Your task to perform on an android device: see creations saved in the google photos Image 0: 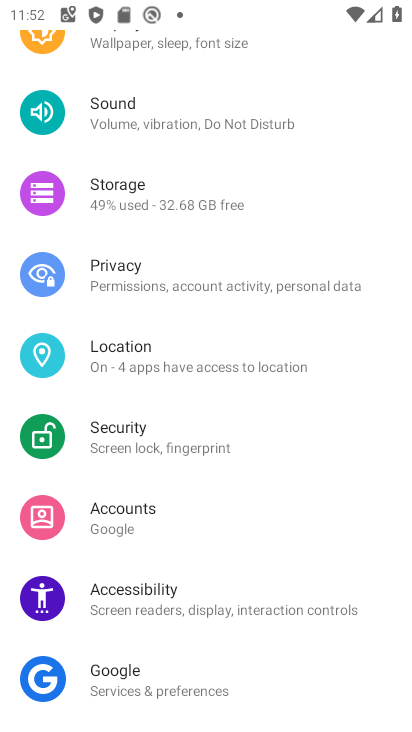
Step 0: press home button
Your task to perform on an android device: see creations saved in the google photos Image 1: 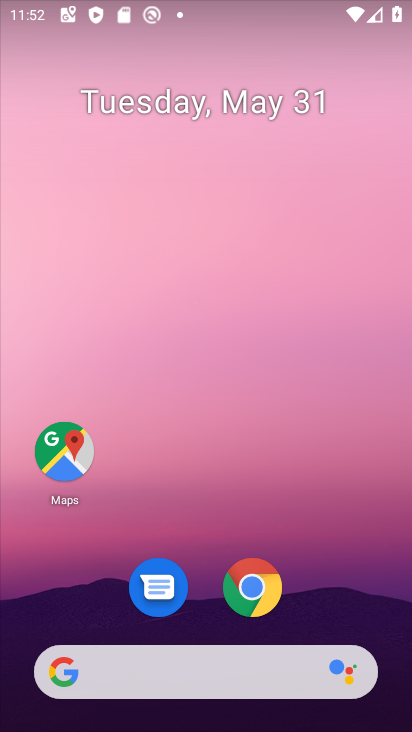
Step 1: drag from (350, 521) to (332, 223)
Your task to perform on an android device: see creations saved in the google photos Image 2: 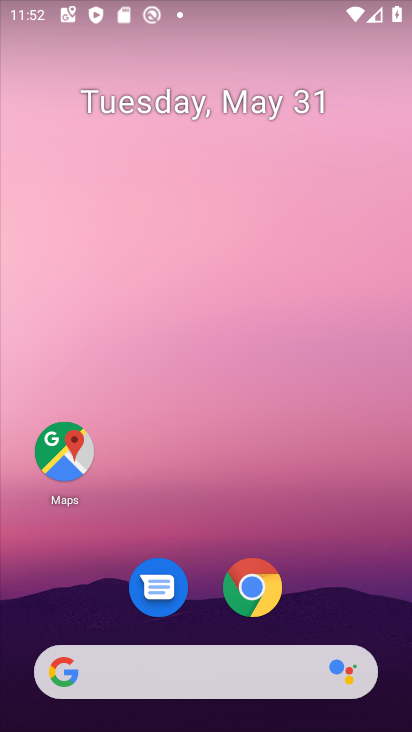
Step 2: drag from (327, 615) to (328, 188)
Your task to perform on an android device: see creations saved in the google photos Image 3: 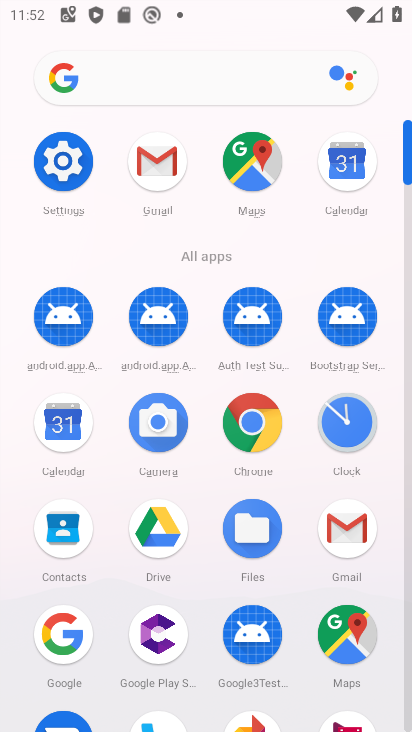
Step 3: drag from (297, 484) to (301, 302)
Your task to perform on an android device: see creations saved in the google photos Image 4: 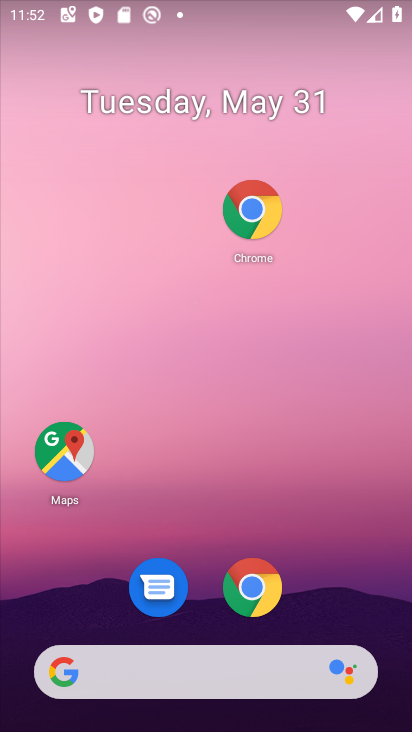
Step 4: drag from (320, 457) to (340, 87)
Your task to perform on an android device: see creations saved in the google photos Image 5: 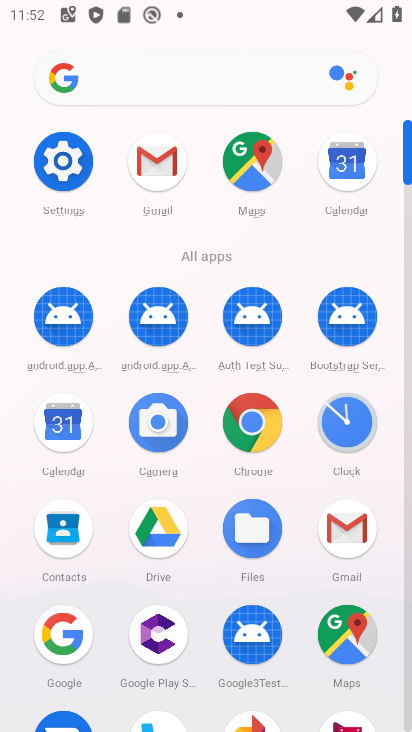
Step 5: drag from (291, 243) to (304, 78)
Your task to perform on an android device: see creations saved in the google photos Image 6: 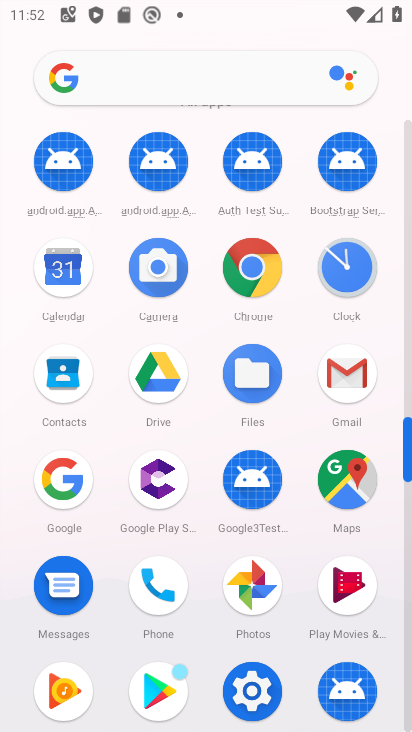
Step 6: click (255, 589)
Your task to perform on an android device: see creations saved in the google photos Image 7: 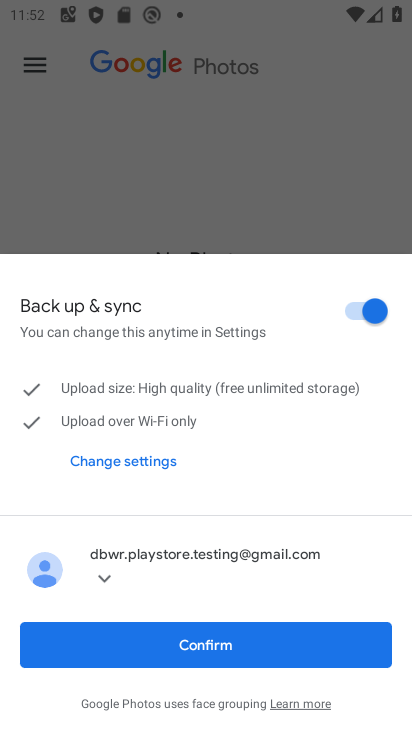
Step 7: click (261, 636)
Your task to perform on an android device: see creations saved in the google photos Image 8: 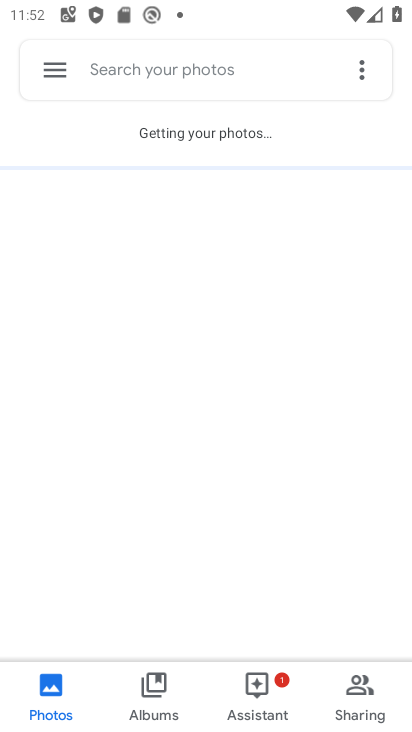
Step 8: click (176, 52)
Your task to perform on an android device: see creations saved in the google photos Image 9: 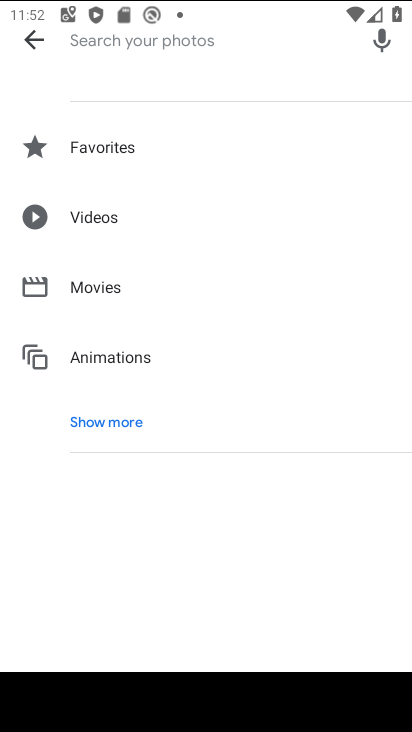
Step 9: click (89, 423)
Your task to perform on an android device: see creations saved in the google photos Image 10: 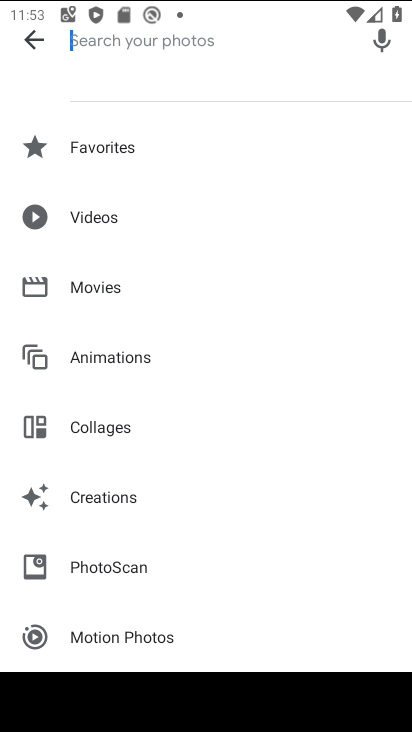
Step 10: click (98, 504)
Your task to perform on an android device: see creations saved in the google photos Image 11: 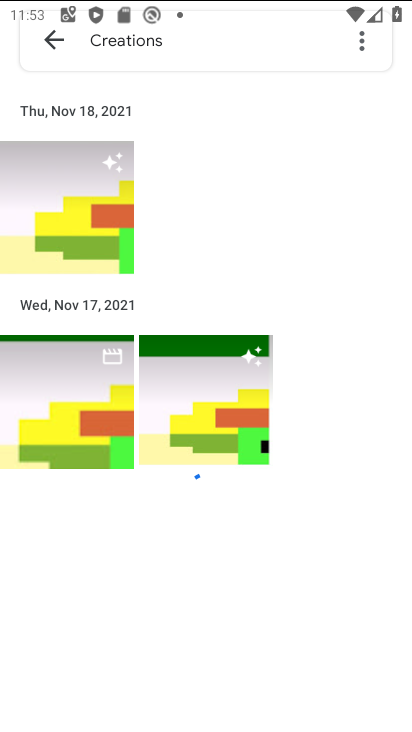
Step 11: task complete